Your task to perform on an android device: Go to network settings Image 0: 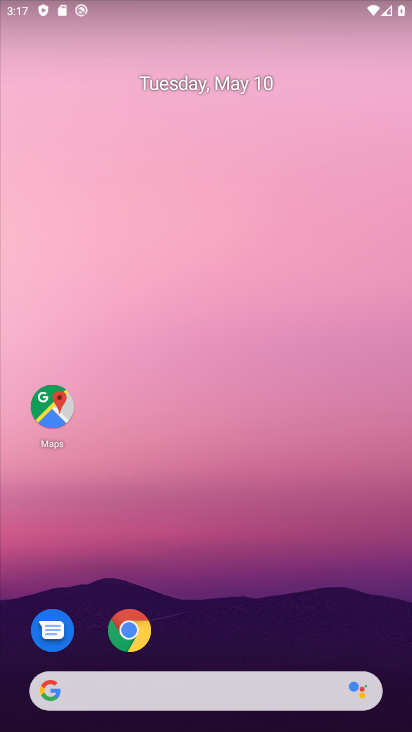
Step 0: drag from (196, 633) to (239, 162)
Your task to perform on an android device: Go to network settings Image 1: 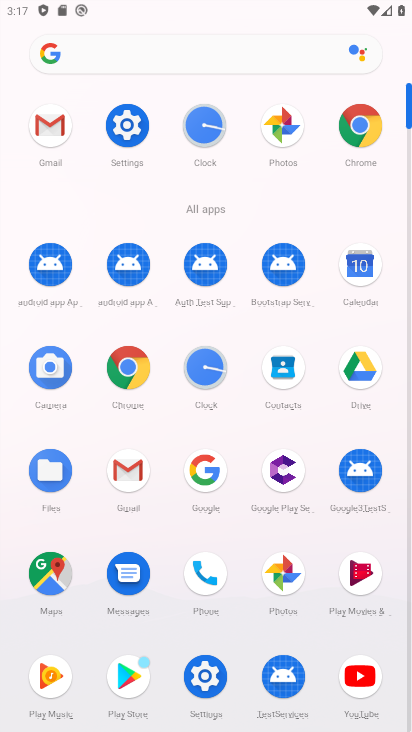
Step 1: click (134, 129)
Your task to perform on an android device: Go to network settings Image 2: 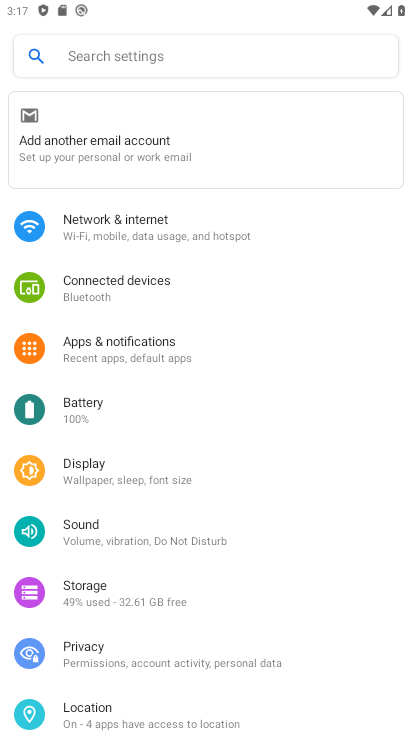
Step 2: click (161, 224)
Your task to perform on an android device: Go to network settings Image 3: 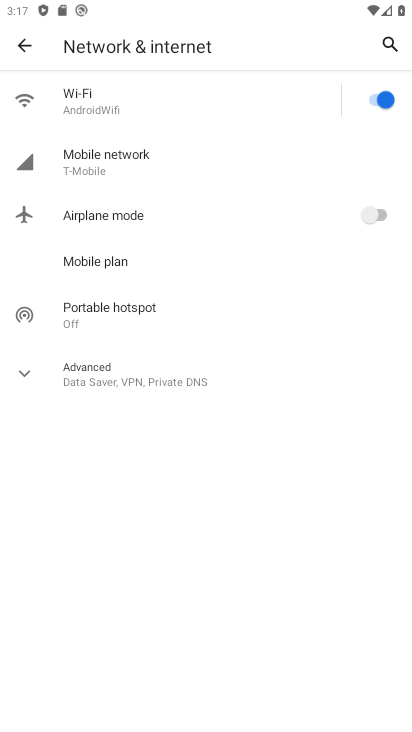
Step 3: click (149, 181)
Your task to perform on an android device: Go to network settings Image 4: 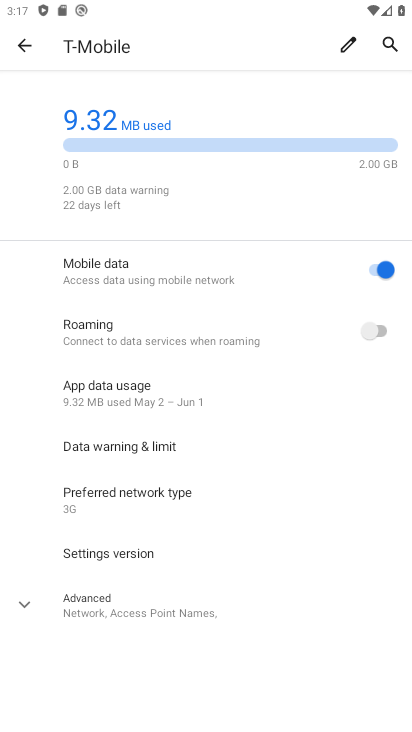
Step 4: task complete